Your task to perform on an android device: turn off airplane mode Image 0: 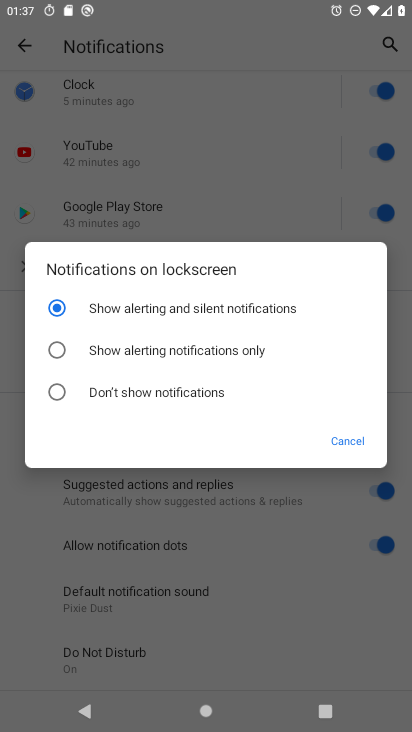
Step 0: press home button
Your task to perform on an android device: turn off airplane mode Image 1: 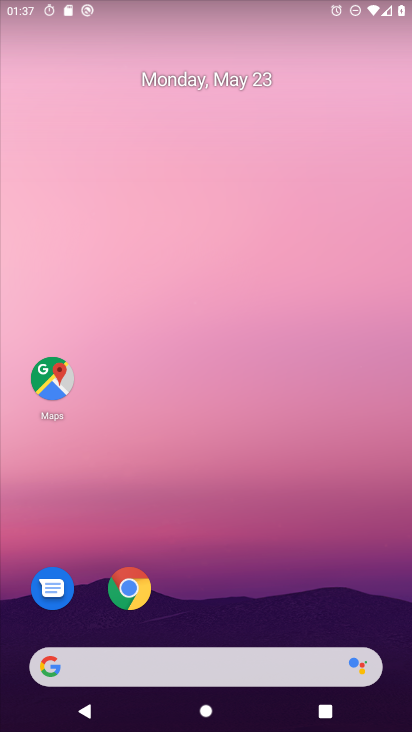
Step 1: drag from (273, 684) to (286, 160)
Your task to perform on an android device: turn off airplane mode Image 2: 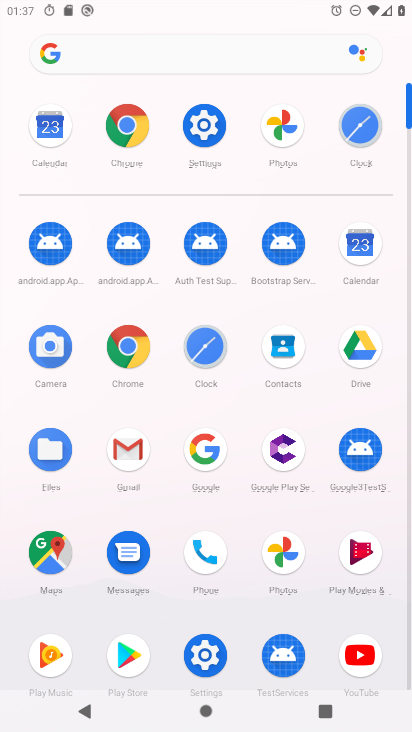
Step 2: click (203, 134)
Your task to perform on an android device: turn off airplane mode Image 3: 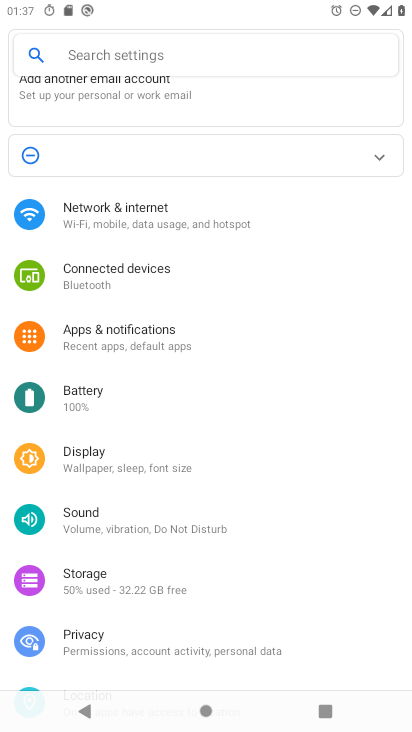
Step 3: click (153, 204)
Your task to perform on an android device: turn off airplane mode Image 4: 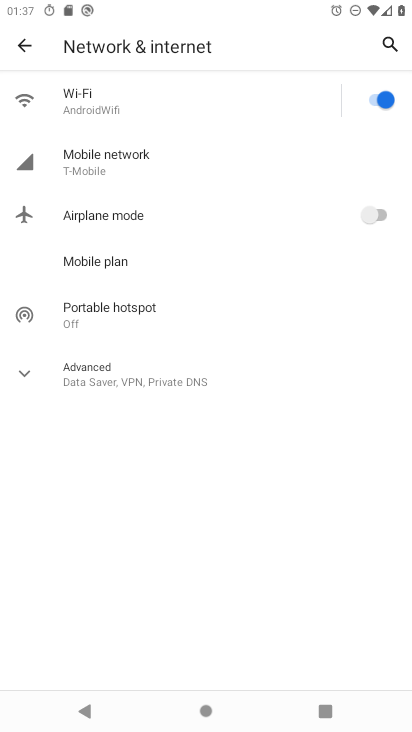
Step 4: click (314, 215)
Your task to perform on an android device: turn off airplane mode Image 5: 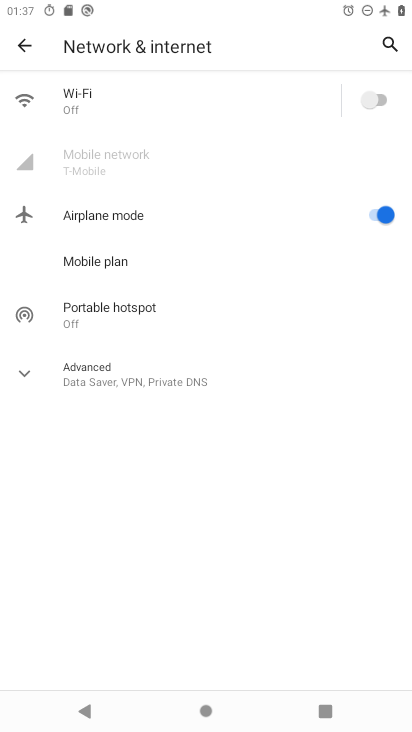
Step 5: click (314, 215)
Your task to perform on an android device: turn off airplane mode Image 6: 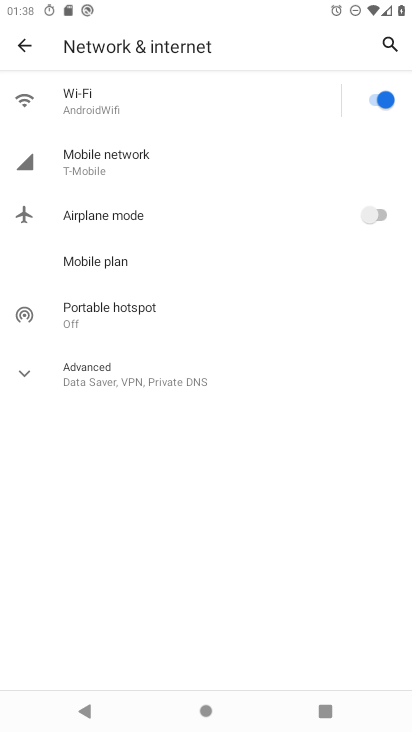
Step 6: task complete